Your task to perform on an android device: open app "Google Home" (install if not already installed) Image 0: 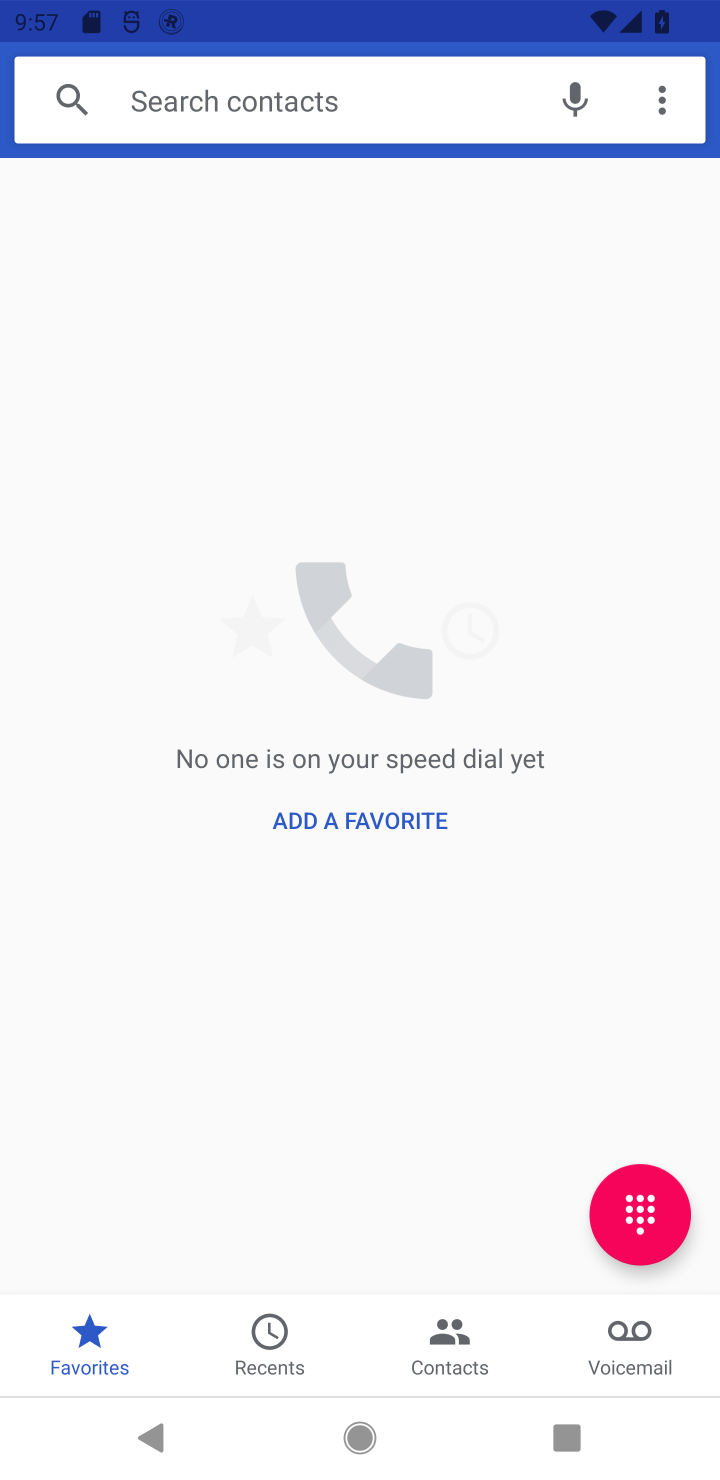
Step 0: press back button
Your task to perform on an android device: open app "Google Home" (install if not already installed) Image 1: 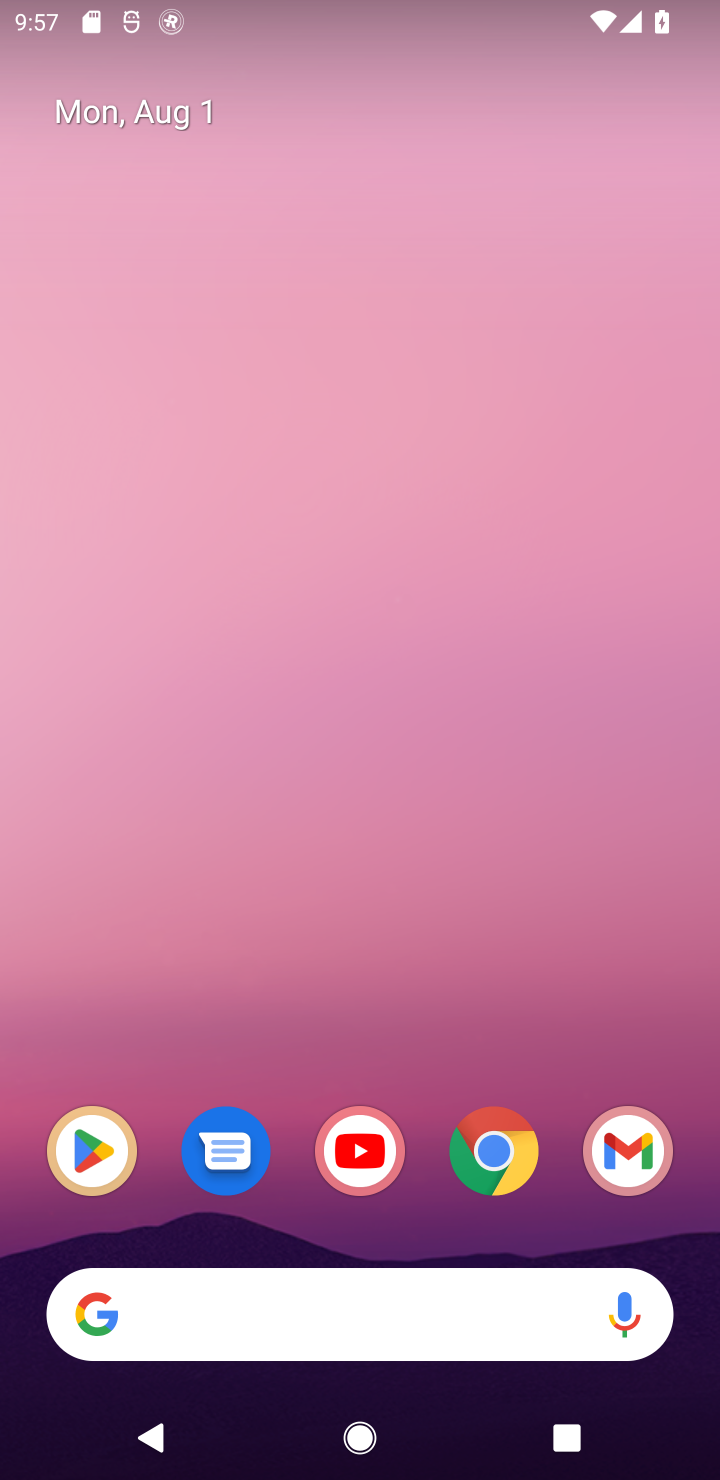
Step 1: click (100, 1144)
Your task to perform on an android device: open app "Google Home" (install if not already installed) Image 2: 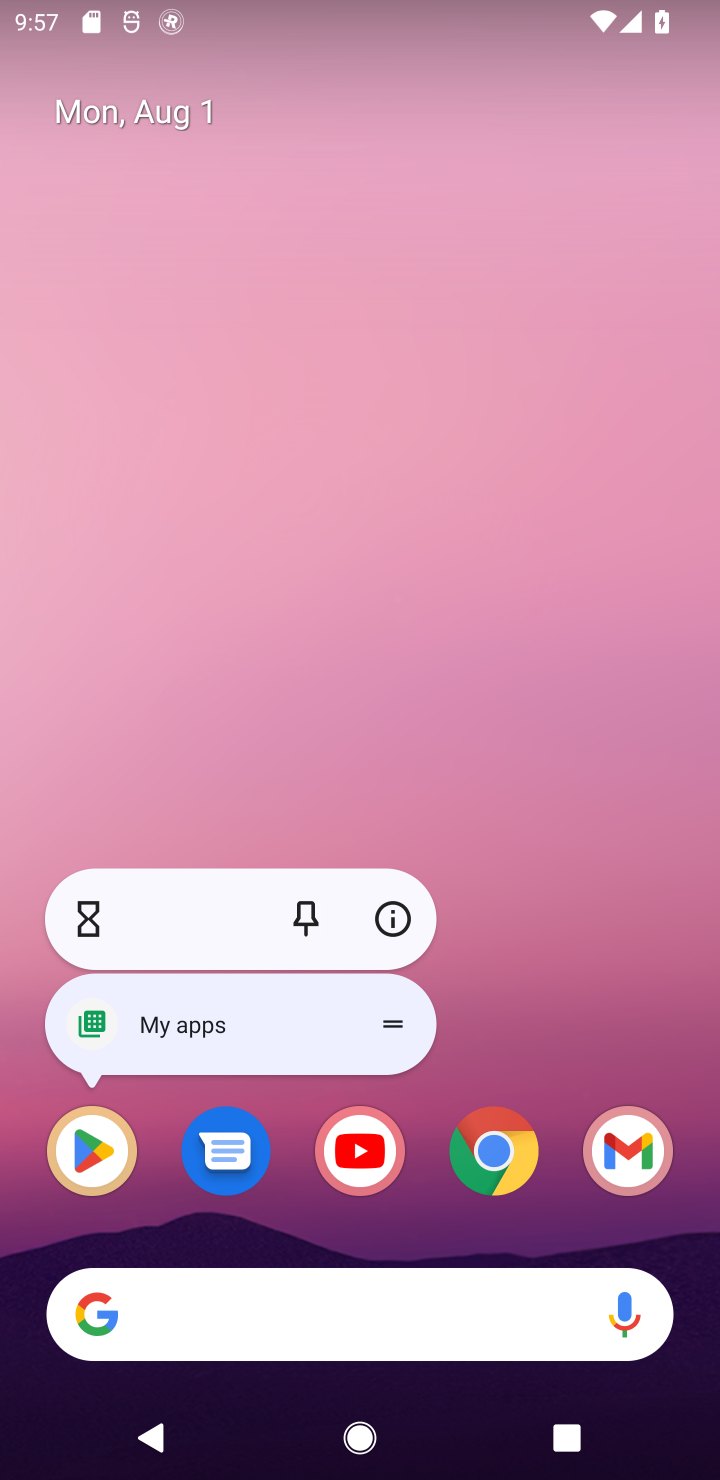
Step 2: click (60, 1141)
Your task to perform on an android device: open app "Google Home" (install if not already installed) Image 3: 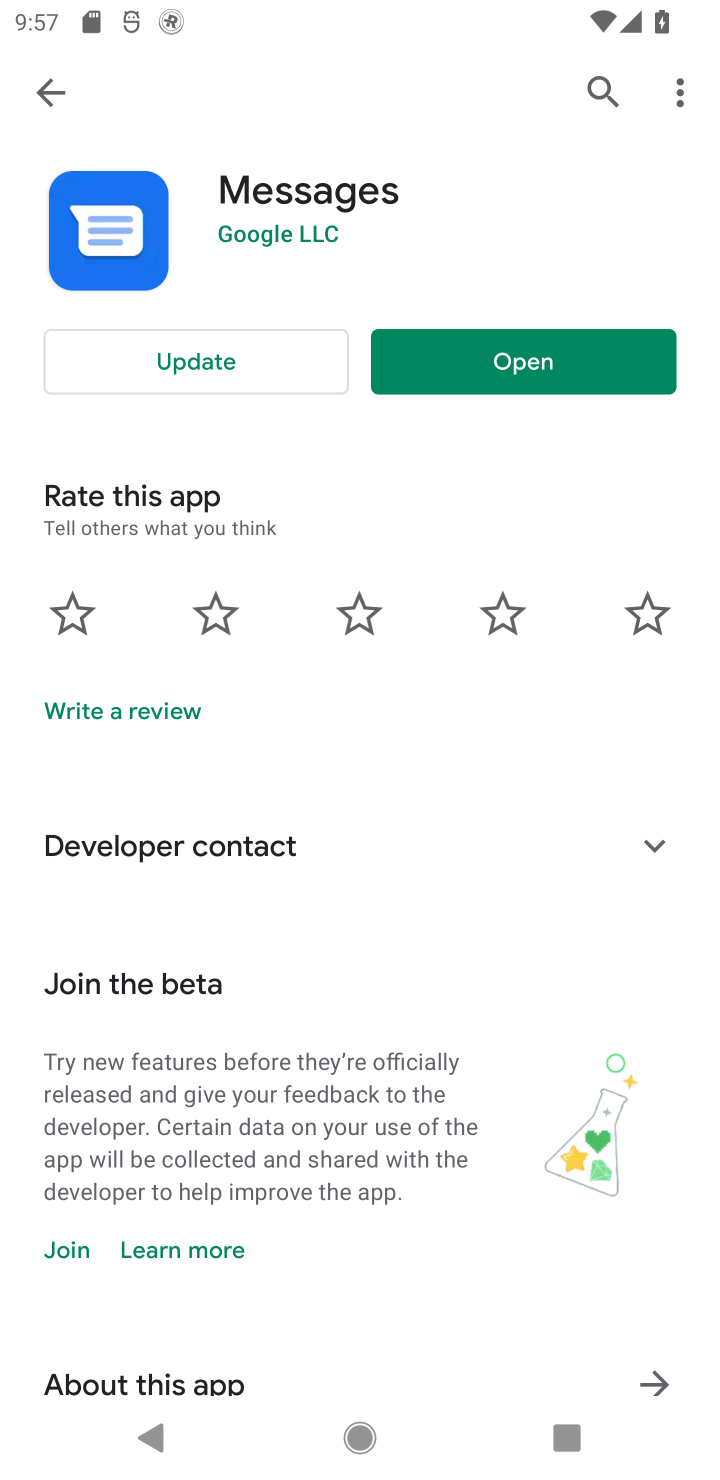
Step 3: click (602, 89)
Your task to perform on an android device: open app "Google Home" (install if not already installed) Image 4: 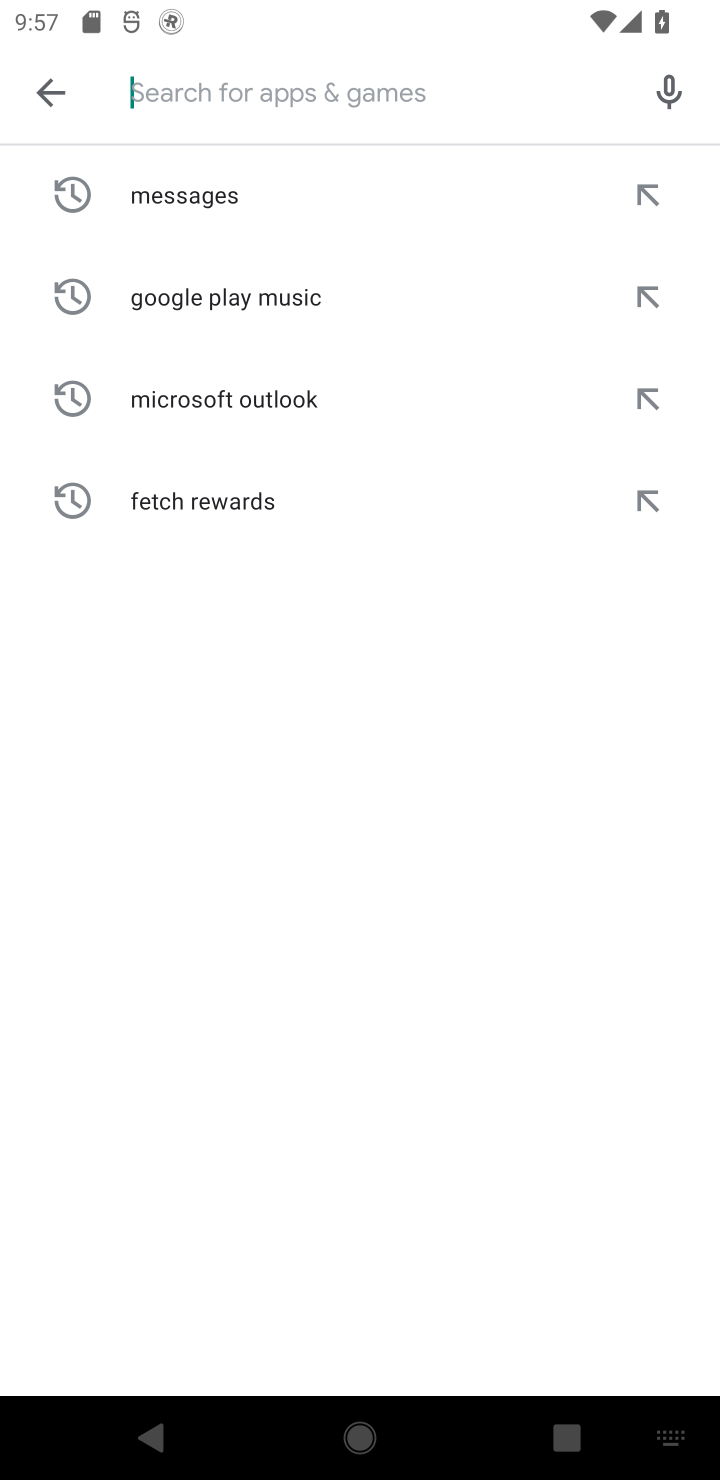
Step 4: type "Google Home"
Your task to perform on an android device: open app "Google Home" (install if not already installed) Image 5: 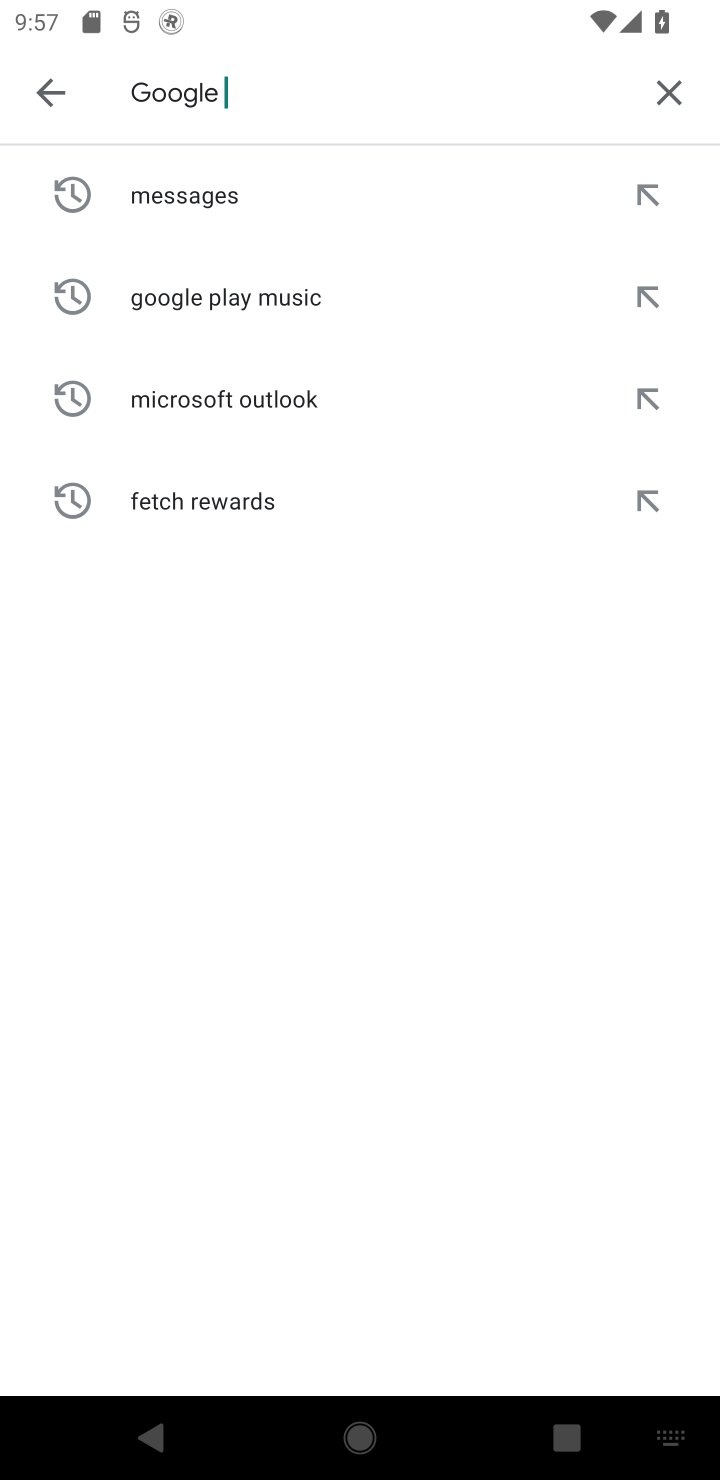
Step 5: type ""
Your task to perform on an android device: open app "Google Home" (install if not already installed) Image 6: 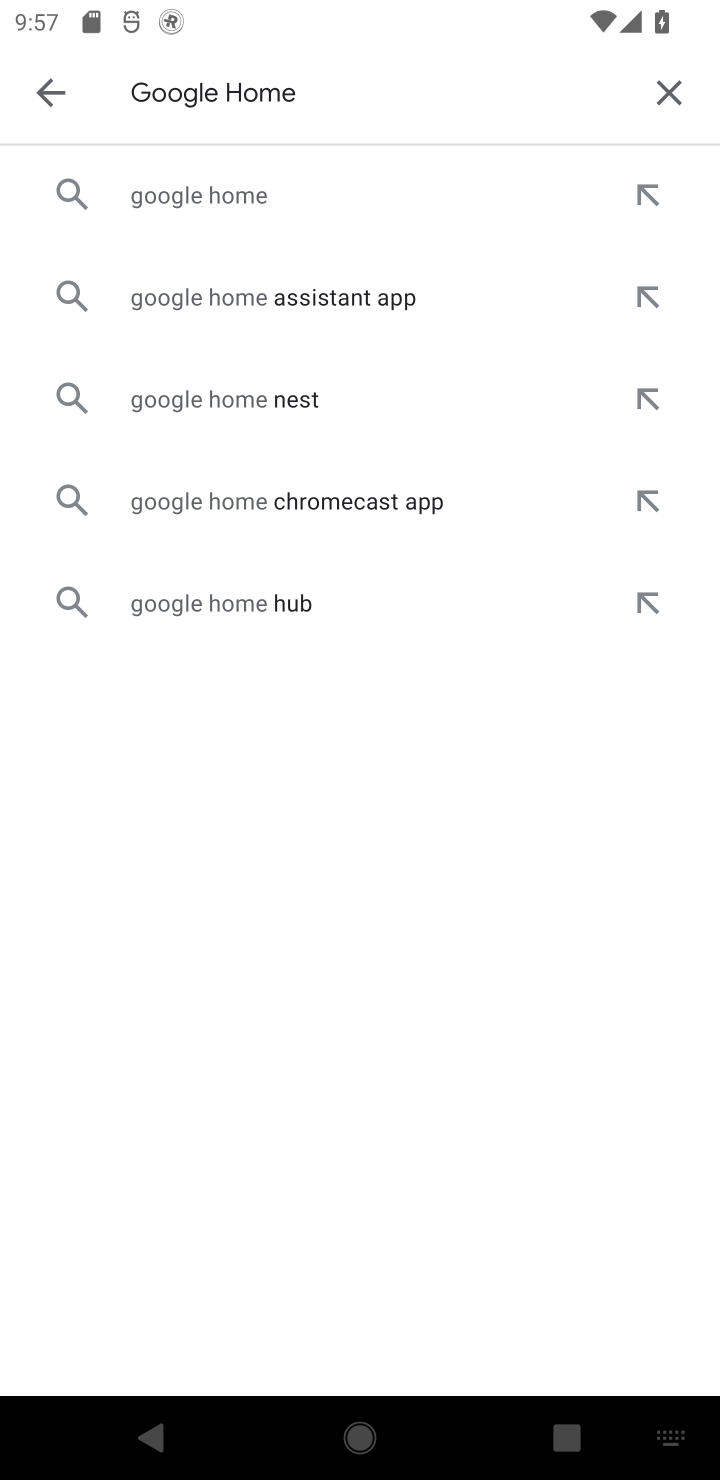
Step 6: click (293, 212)
Your task to perform on an android device: open app "Google Home" (install if not already installed) Image 7: 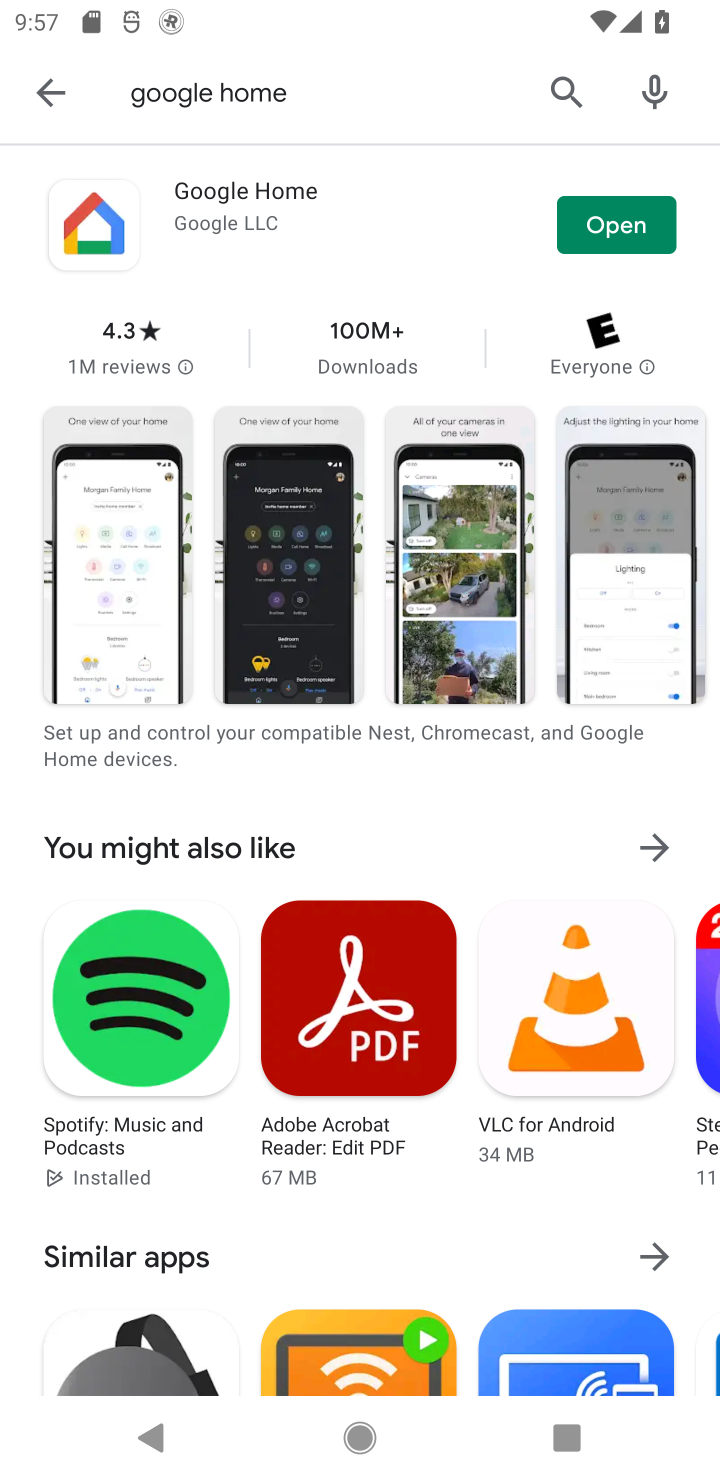
Step 7: click (611, 235)
Your task to perform on an android device: open app "Google Home" (install if not already installed) Image 8: 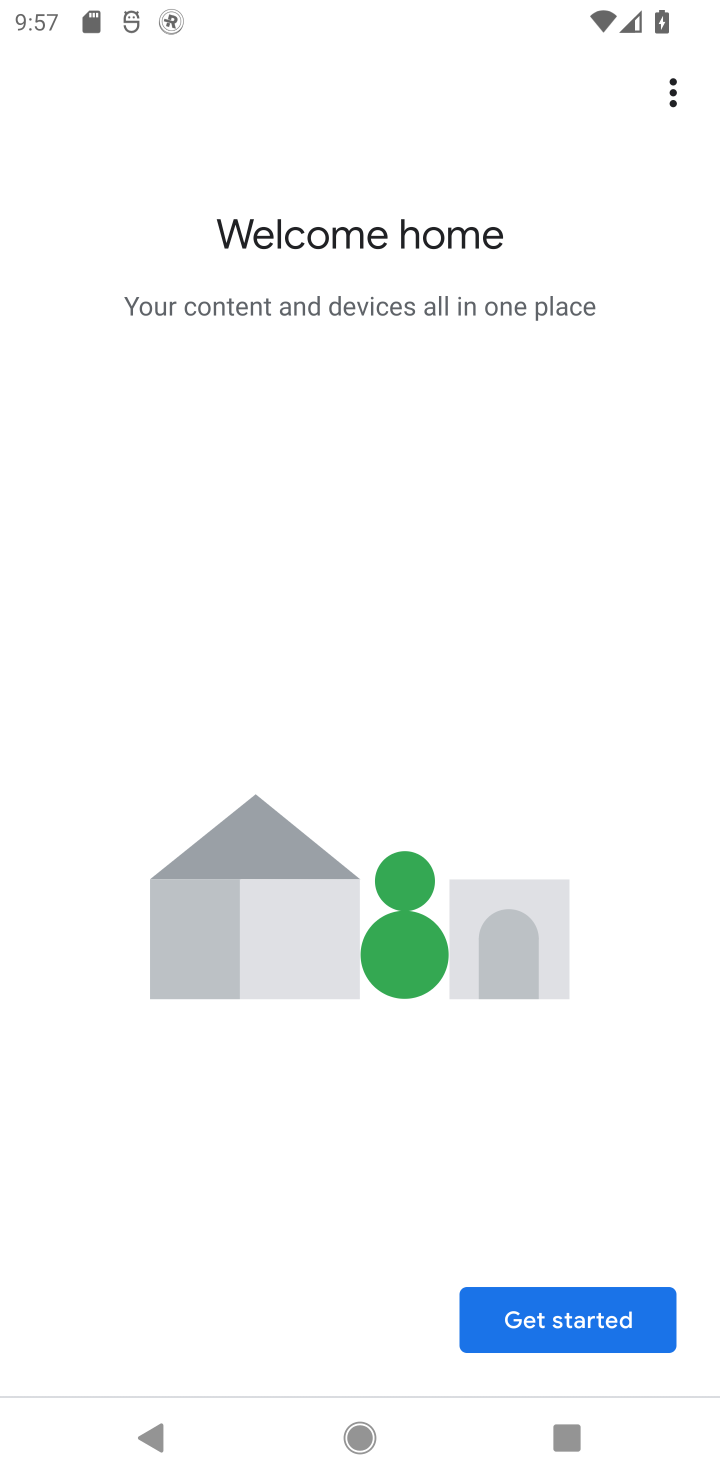
Step 8: task complete